Your task to perform on an android device: Open Google Image 0: 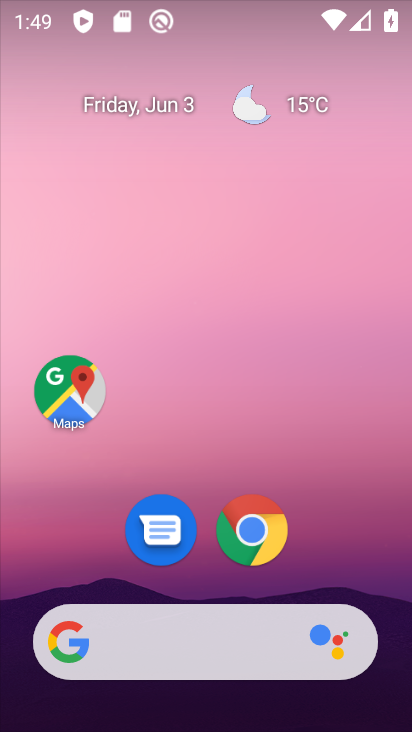
Step 0: drag from (215, 568) to (144, 8)
Your task to perform on an android device: Open Google Image 1: 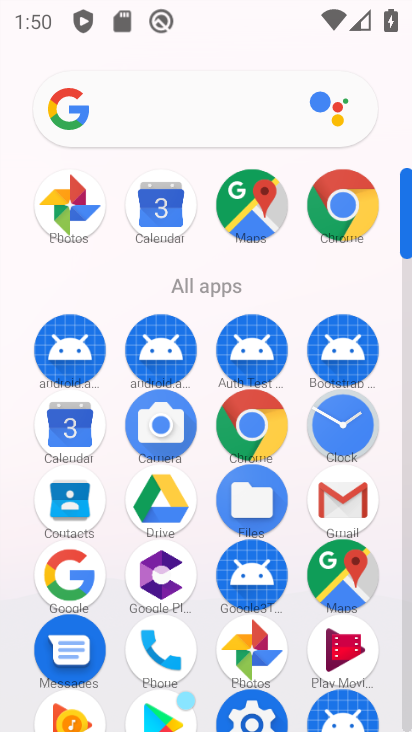
Step 1: drag from (171, 643) to (233, 113)
Your task to perform on an android device: Open Google Image 2: 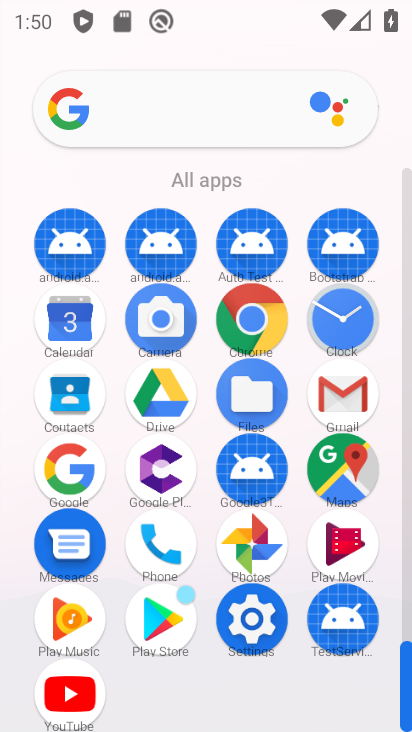
Step 2: click (69, 488)
Your task to perform on an android device: Open Google Image 3: 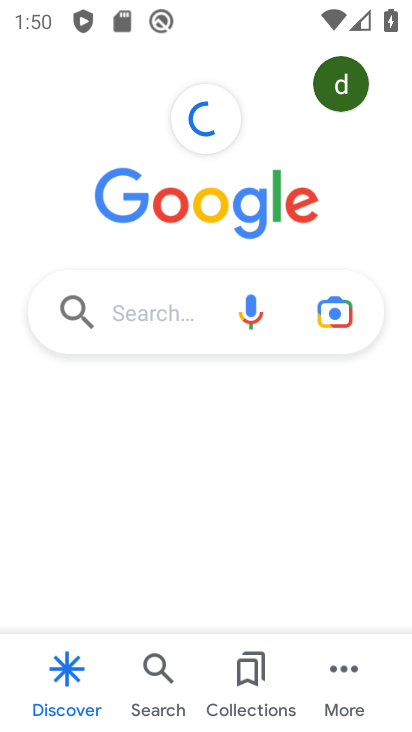
Step 3: task complete